Your task to perform on an android device: turn on showing notifications on the lock screen Image 0: 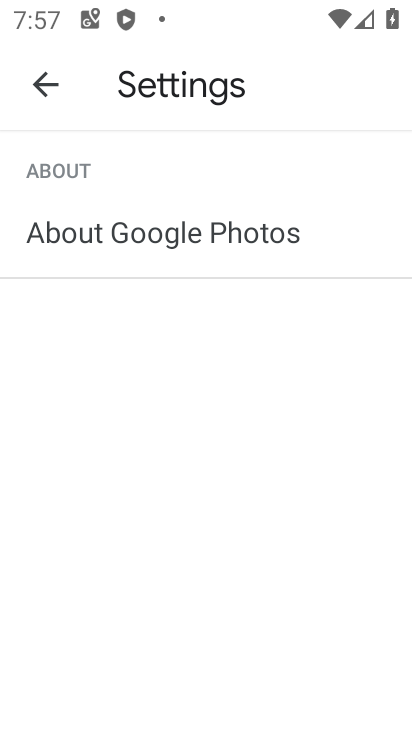
Step 0: press home button
Your task to perform on an android device: turn on showing notifications on the lock screen Image 1: 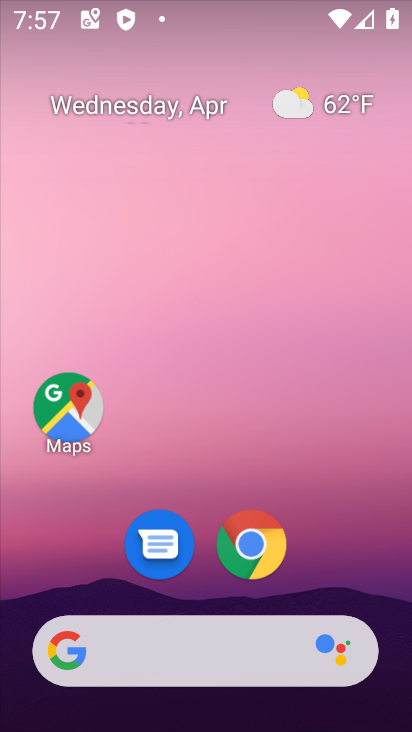
Step 1: drag from (331, 526) to (262, 104)
Your task to perform on an android device: turn on showing notifications on the lock screen Image 2: 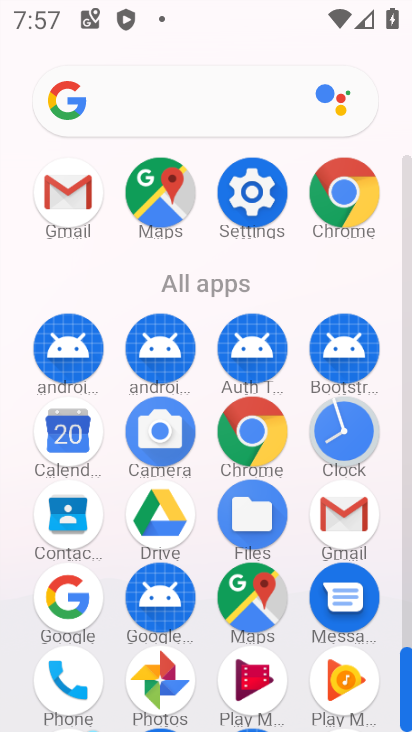
Step 2: click (256, 195)
Your task to perform on an android device: turn on showing notifications on the lock screen Image 3: 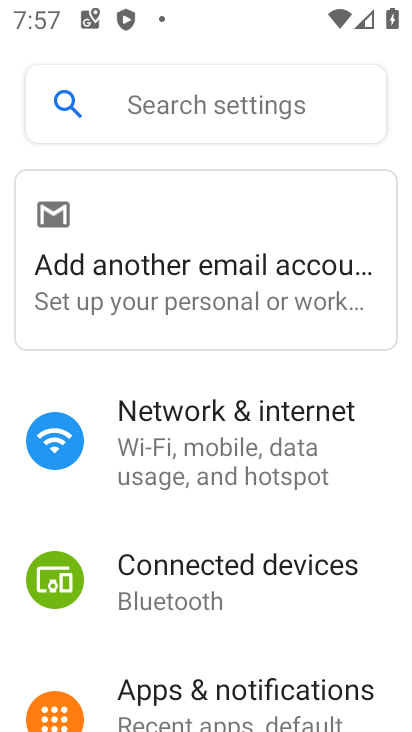
Step 3: click (223, 703)
Your task to perform on an android device: turn on showing notifications on the lock screen Image 4: 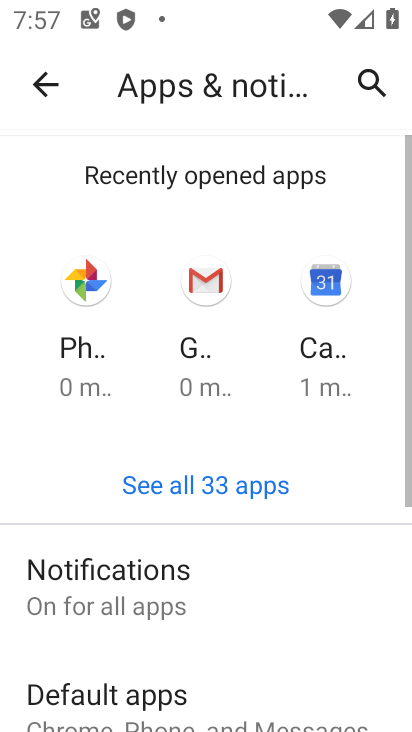
Step 4: click (144, 601)
Your task to perform on an android device: turn on showing notifications on the lock screen Image 5: 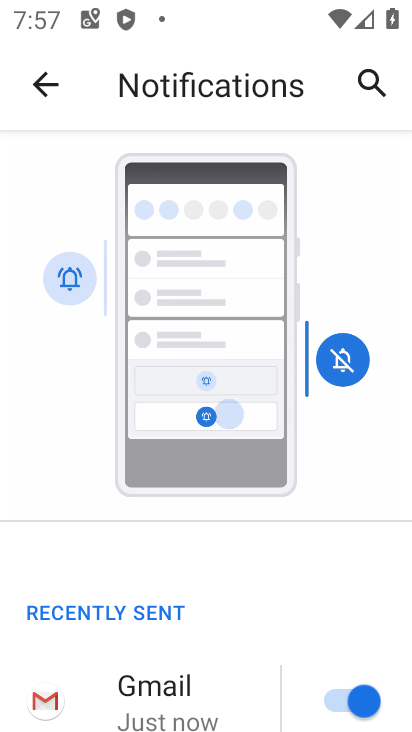
Step 5: drag from (253, 682) to (199, 126)
Your task to perform on an android device: turn on showing notifications on the lock screen Image 6: 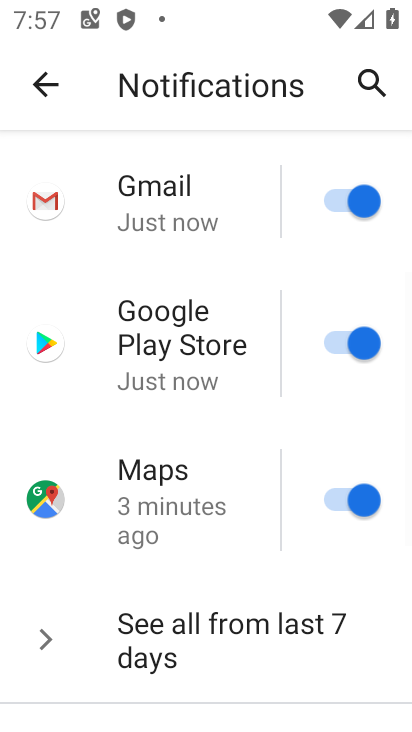
Step 6: drag from (216, 638) to (206, 247)
Your task to perform on an android device: turn on showing notifications on the lock screen Image 7: 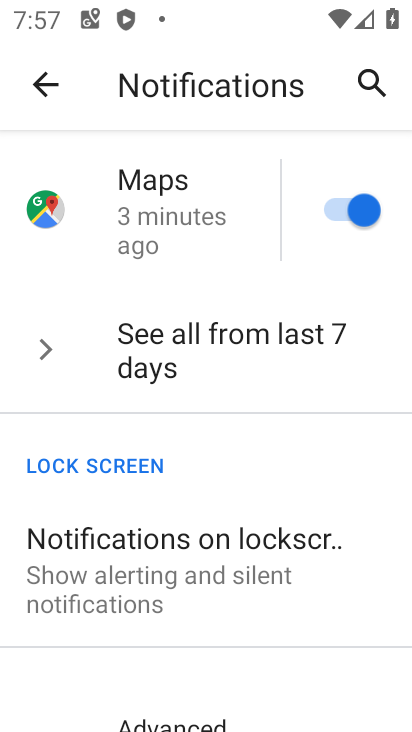
Step 7: click (129, 594)
Your task to perform on an android device: turn on showing notifications on the lock screen Image 8: 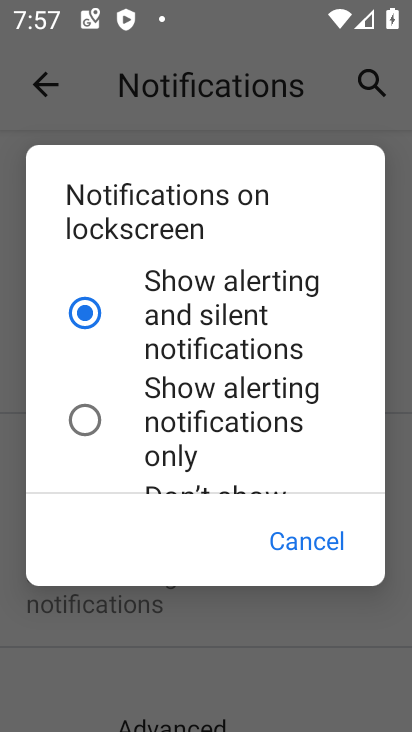
Step 8: task complete